Your task to perform on an android device: Look up the best gaming headphones on Best Buy Image 0: 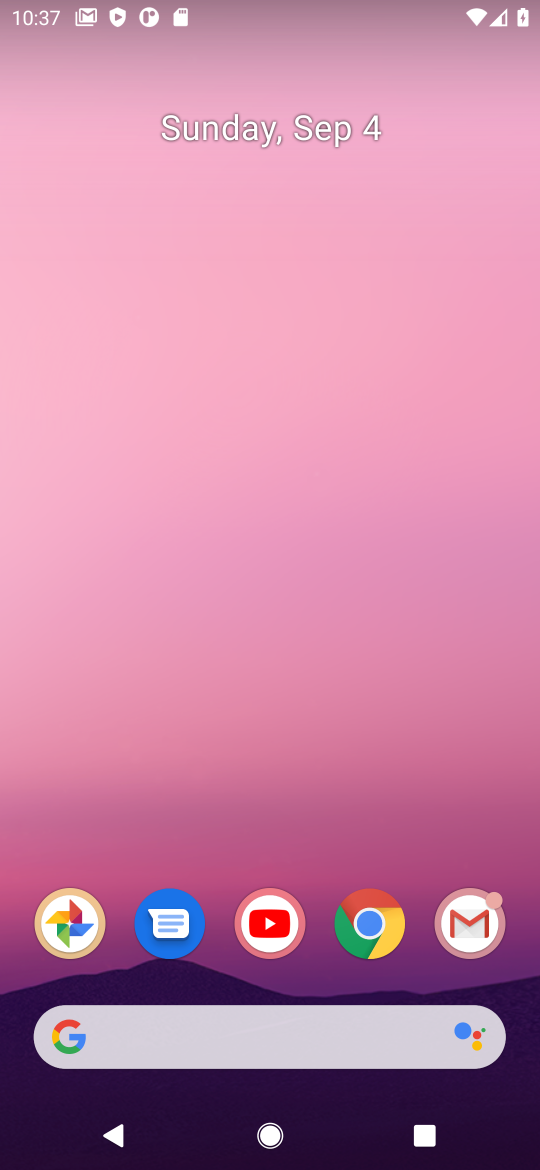
Step 0: click (383, 926)
Your task to perform on an android device: Look up the best gaming headphones on Best Buy Image 1: 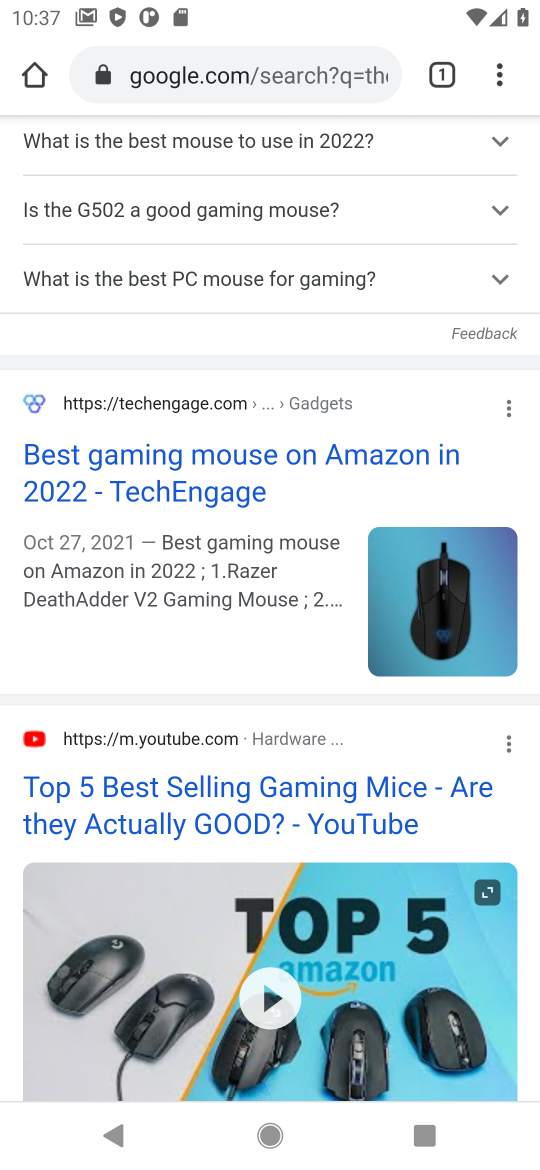
Step 1: click (186, 95)
Your task to perform on an android device: Look up the best gaming headphones on Best Buy Image 2: 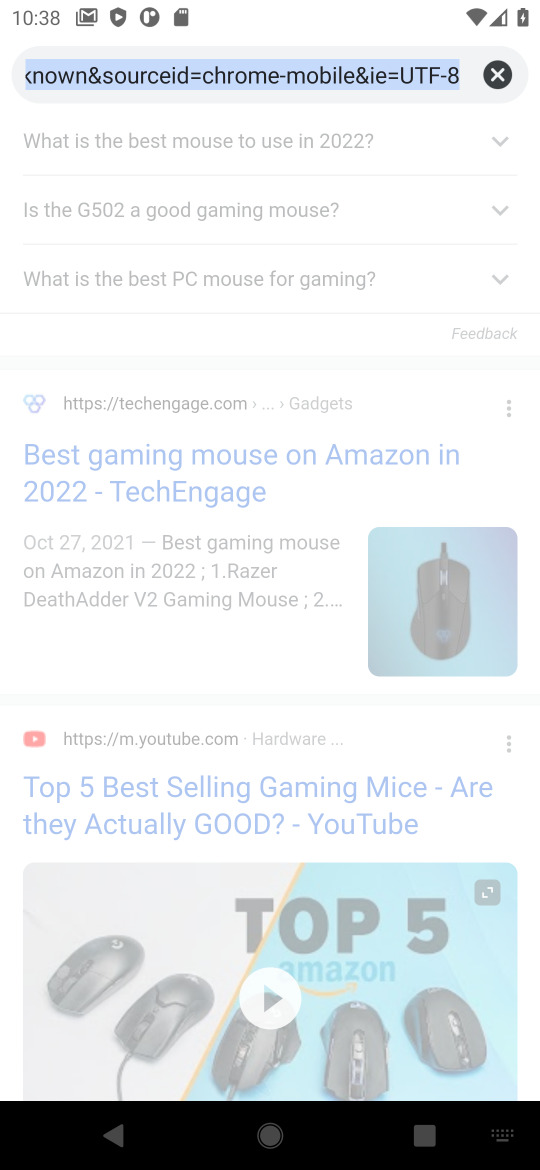
Step 2: click (489, 73)
Your task to perform on an android device: Look up the best gaming headphones on Best Buy Image 3: 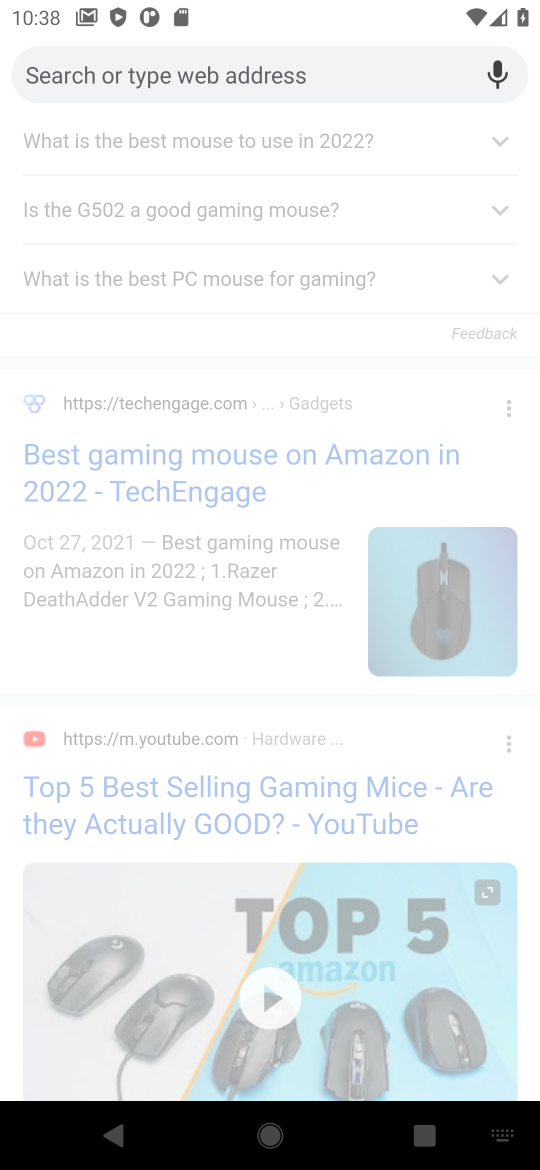
Step 3: type "the best gaming headphones on Best Buy"
Your task to perform on an android device: Look up the best gaming headphones on Best Buy Image 4: 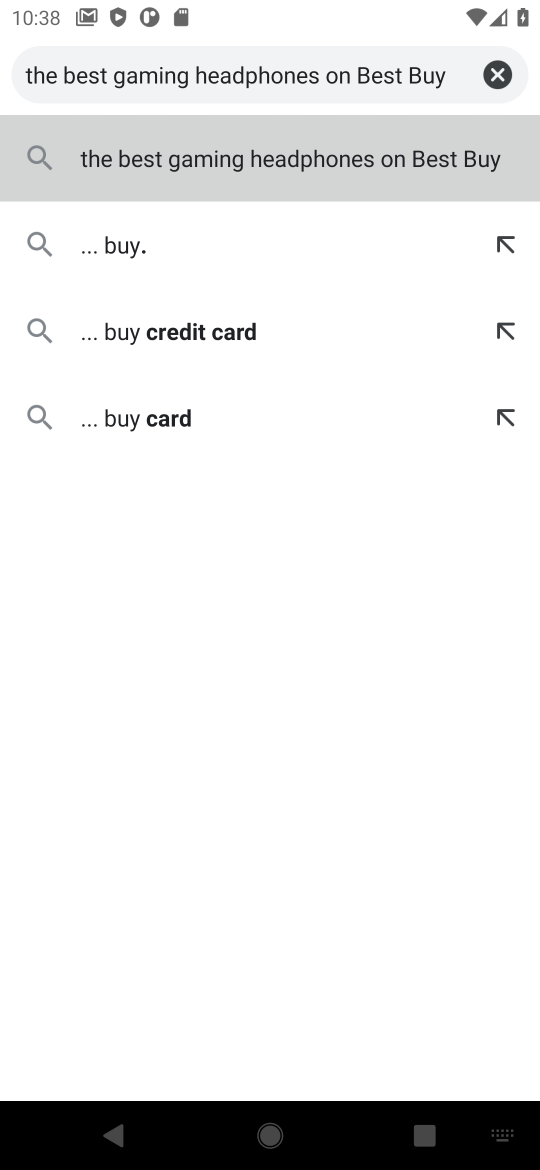
Step 4: click (285, 149)
Your task to perform on an android device: Look up the best gaming headphones on Best Buy Image 5: 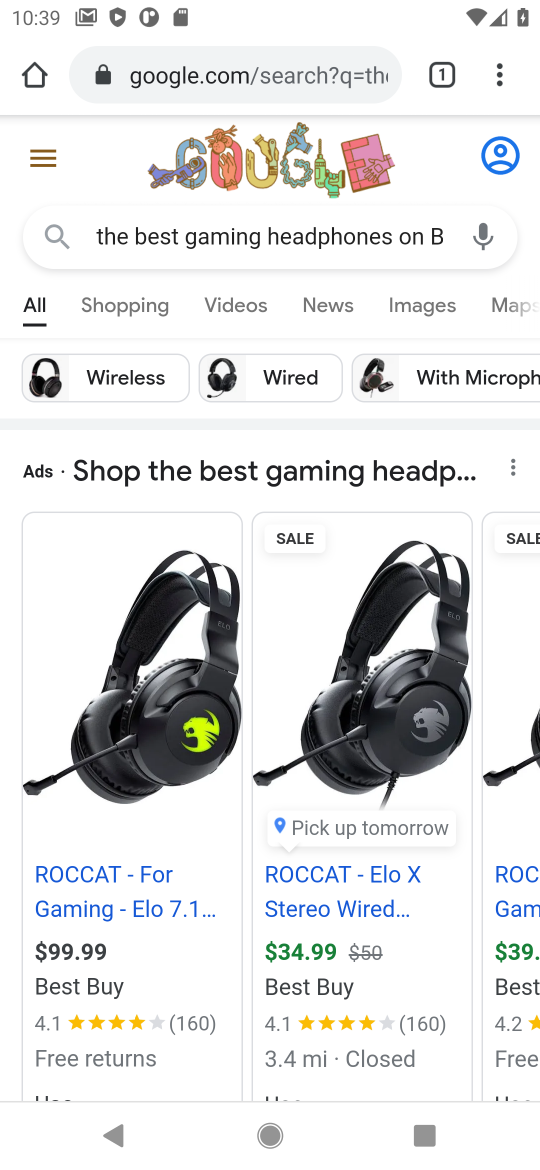
Step 5: task complete